Your task to perform on an android device: Open CNN.com Image 0: 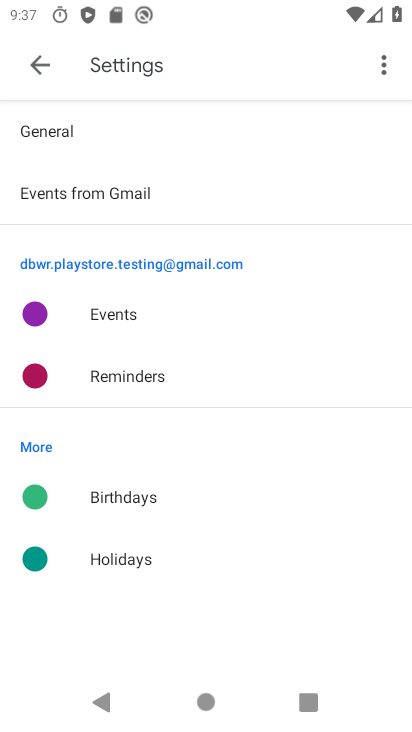
Step 0: press home button
Your task to perform on an android device: Open CNN.com Image 1: 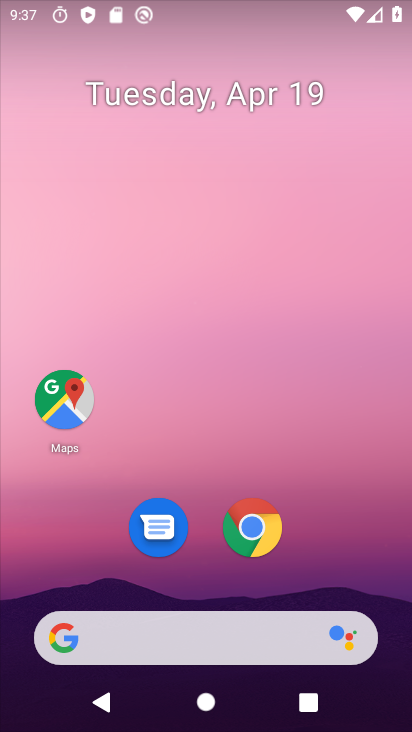
Step 1: drag from (237, 669) to (238, 264)
Your task to perform on an android device: Open CNN.com Image 2: 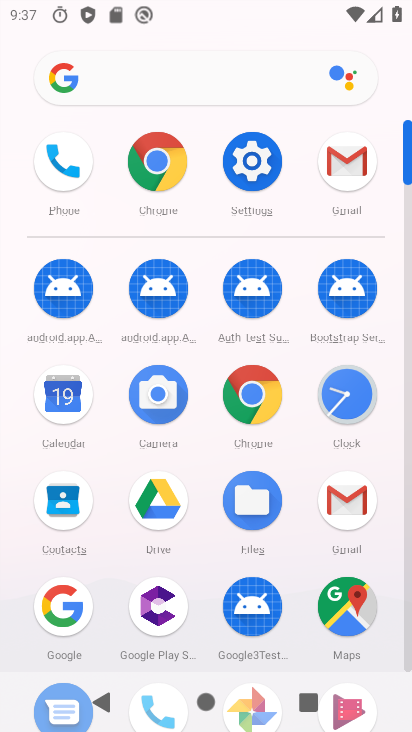
Step 2: click (157, 166)
Your task to perform on an android device: Open CNN.com Image 3: 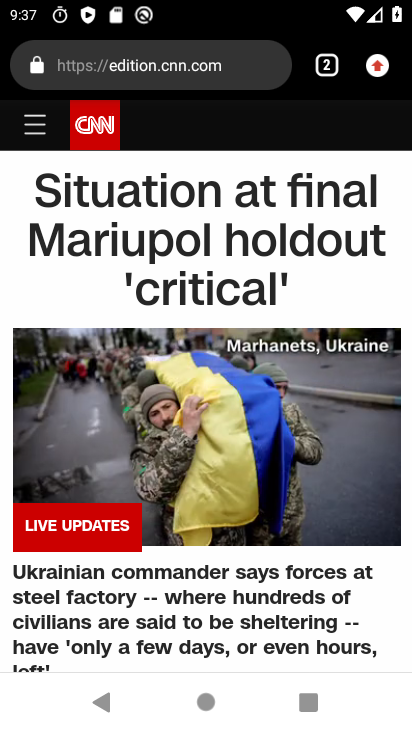
Step 3: click (217, 66)
Your task to perform on an android device: Open CNN.com Image 4: 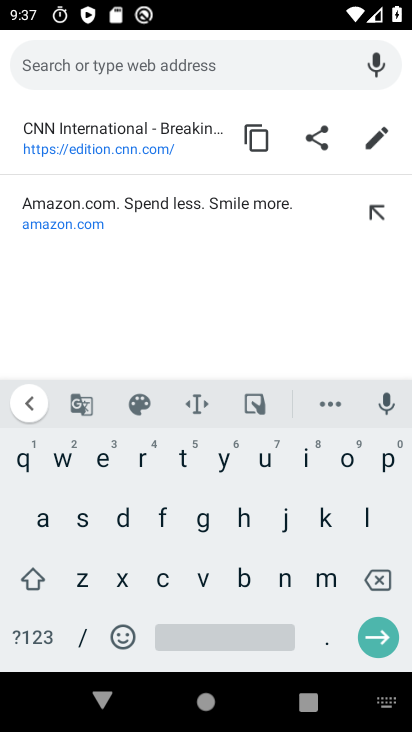
Step 4: click (103, 145)
Your task to perform on an android device: Open CNN.com Image 5: 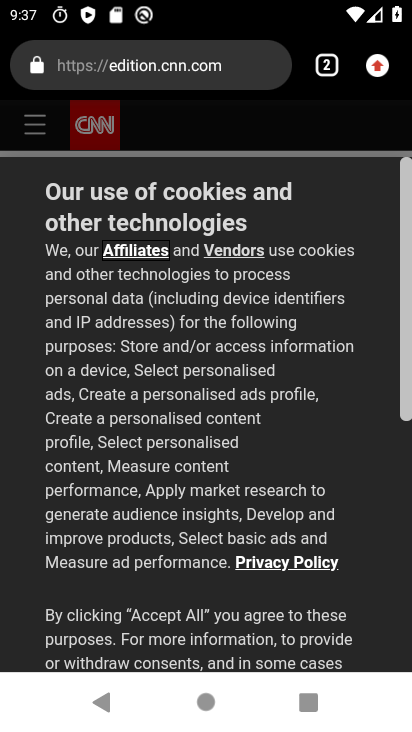
Step 5: task complete